Your task to perform on an android device: Open battery settings Image 0: 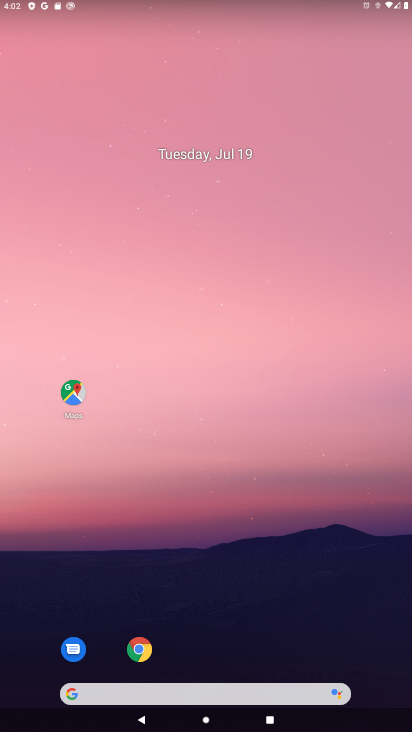
Step 0: drag from (261, 603) to (182, 59)
Your task to perform on an android device: Open battery settings Image 1: 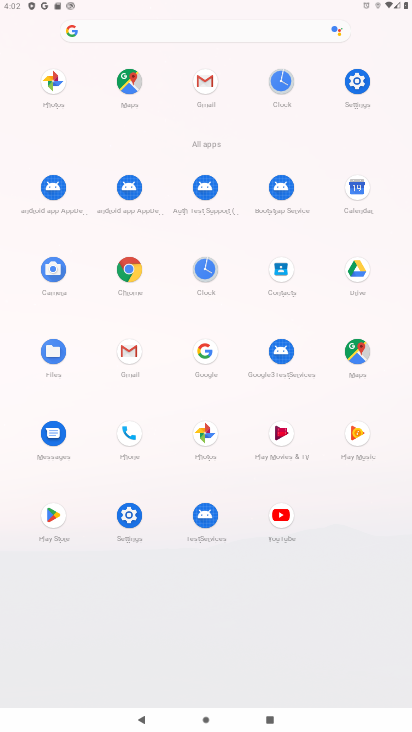
Step 1: click (359, 84)
Your task to perform on an android device: Open battery settings Image 2: 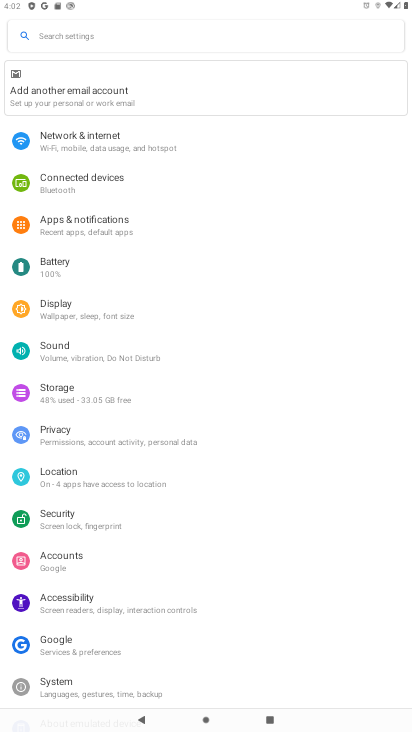
Step 2: click (84, 261)
Your task to perform on an android device: Open battery settings Image 3: 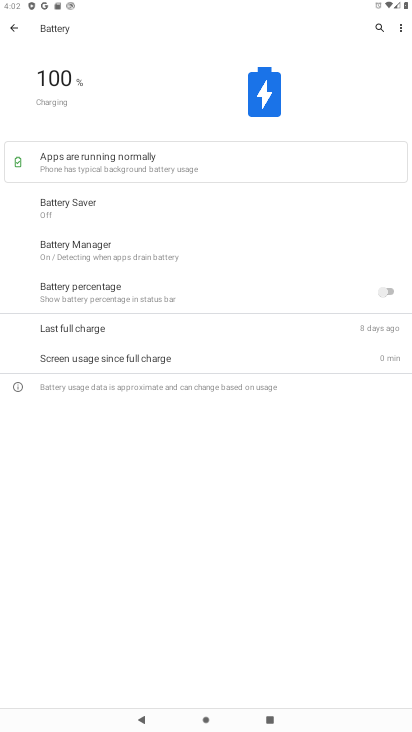
Step 3: task complete